Your task to perform on an android device: Open Yahoo.com Image 0: 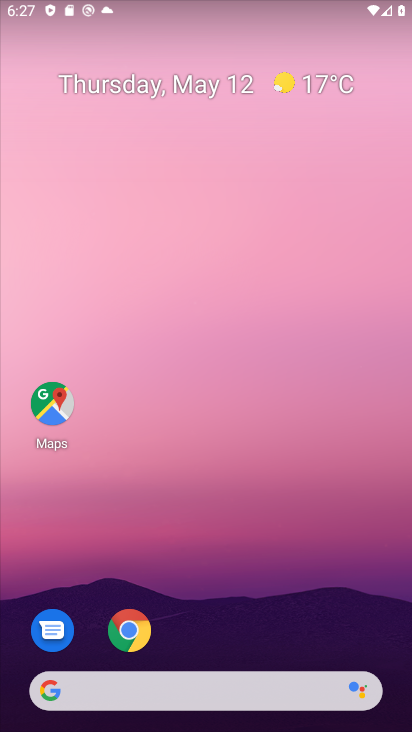
Step 0: drag from (216, 633) to (184, 18)
Your task to perform on an android device: Open Yahoo.com Image 1: 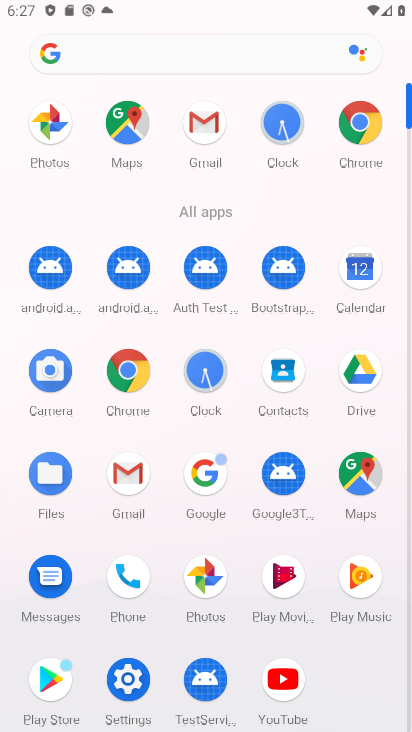
Step 1: click (129, 376)
Your task to perform on an android device: Open Yahoo.com Image 2: 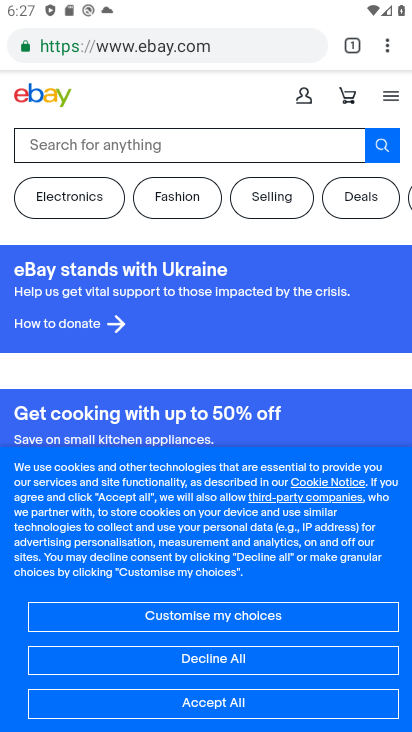
Step 2: press back button
Your task to perform on an android device: Open Yahoo.com Image 3: 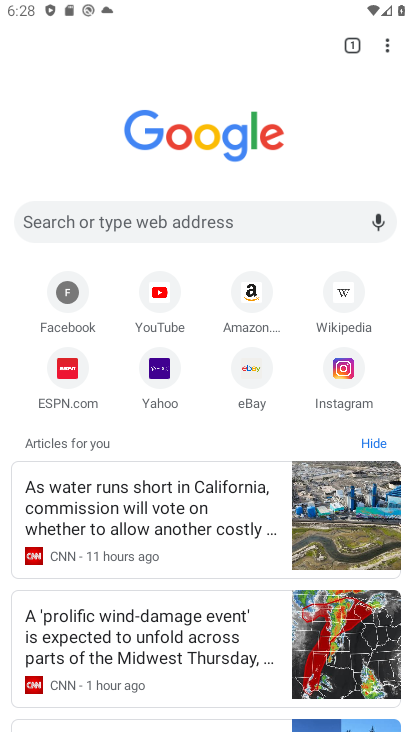
Step 3: click (149, 375)
Your task to perform on an android device: Open Yahoo.com Image 4: 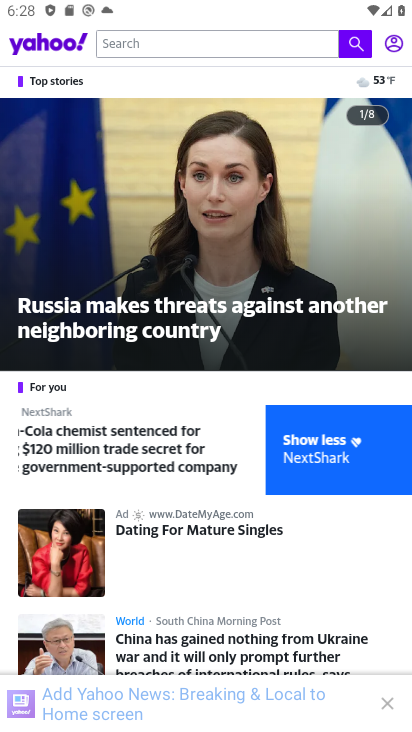
Step 4: task complete